Your task to perform on an android device: check battery use Image 0: 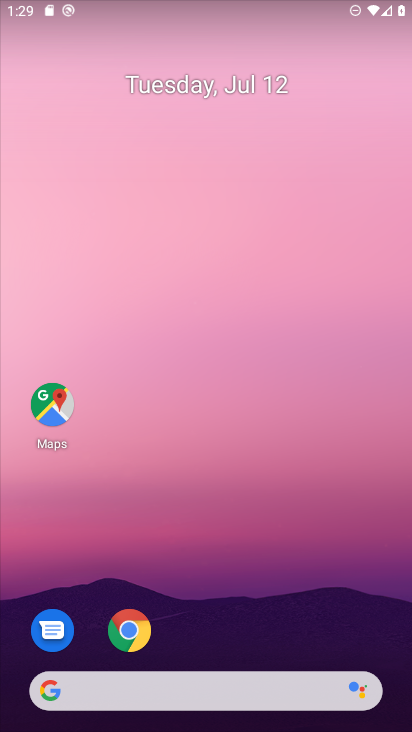
Step 0: drag from (336, 626) to (313, 154)
Your task to perform on an android device: check battery use Image 1: 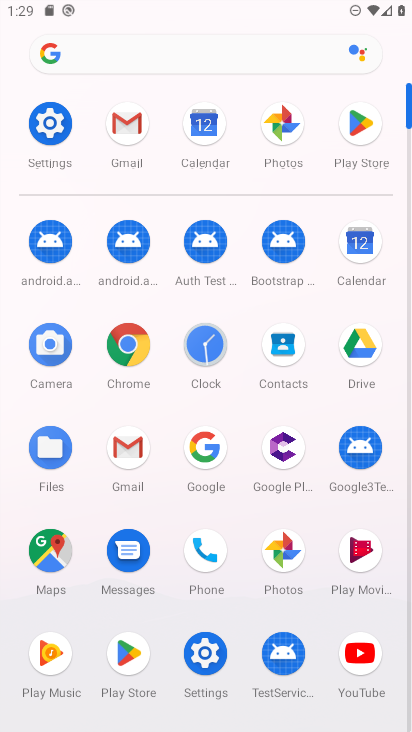
Step 1: click (202, 652)
Your task to perform on an android device: check battery use Image 2: 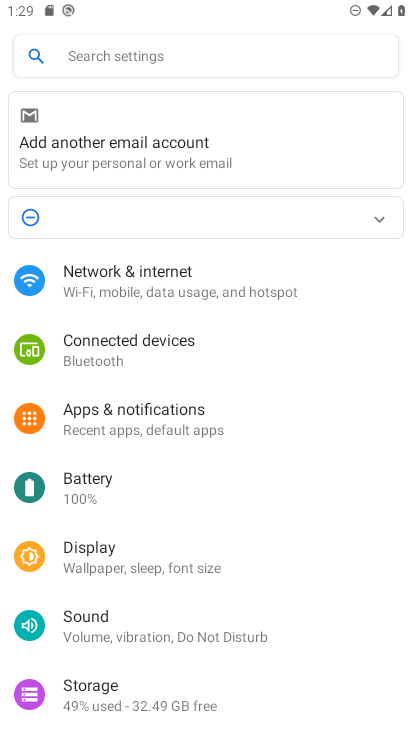
Step 2: click (85, 476)
Your task to perform on an android device: check battery use Image 3: 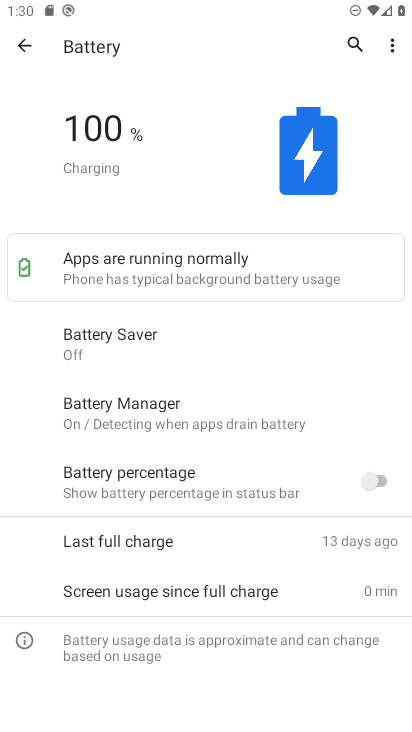
Step 3: click (391, 47)
Your task to perform on an android device: check battery use Image 4: 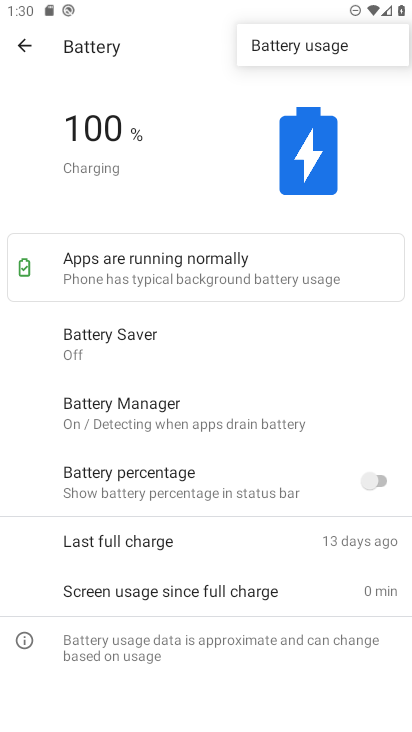
Step 4: click (279, 44)
Your task to perform on an android device: check battery use Image 5: 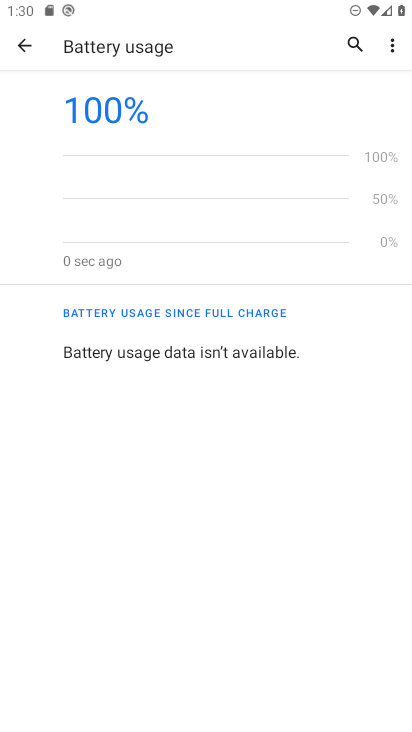
Step 5: task complete